Your task to perform on an android device: Show me recent news Image 0: 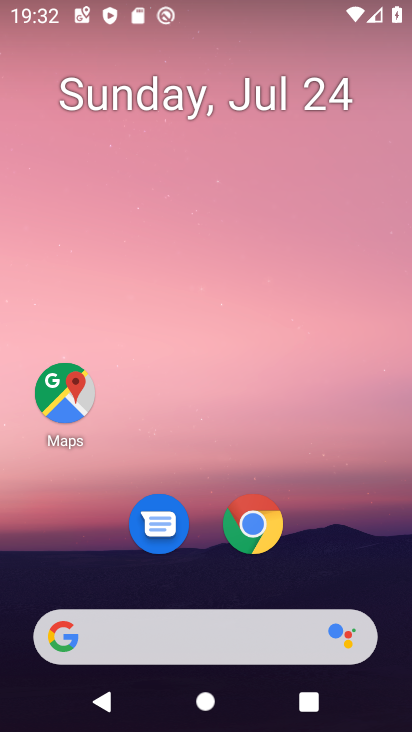
Step 0: click (148, 639)
Your task to perform on an android device: Show me recent news Image 1: 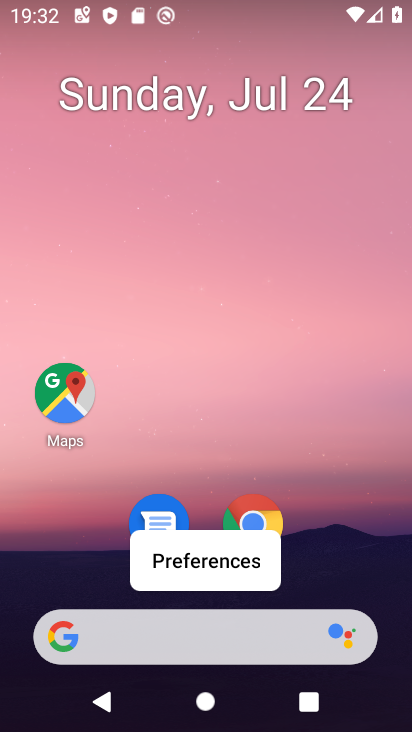
Step 1: click (122, 628)
Your task to perform on an android device: Show me recent news Image 2: 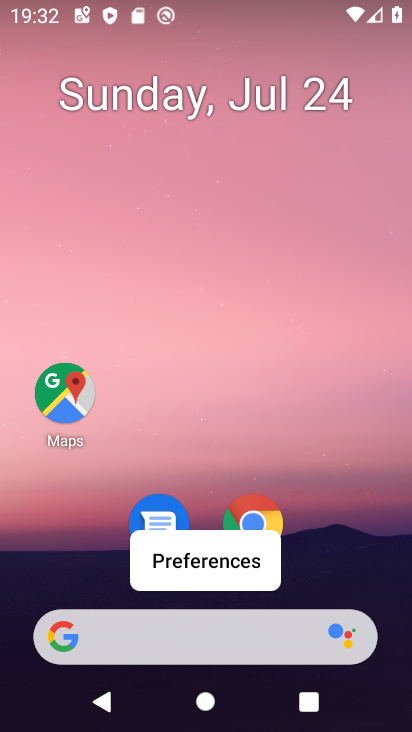
Step 2: click (147, 630)
Your task to perform on an android device: Show me recent news Image 3: 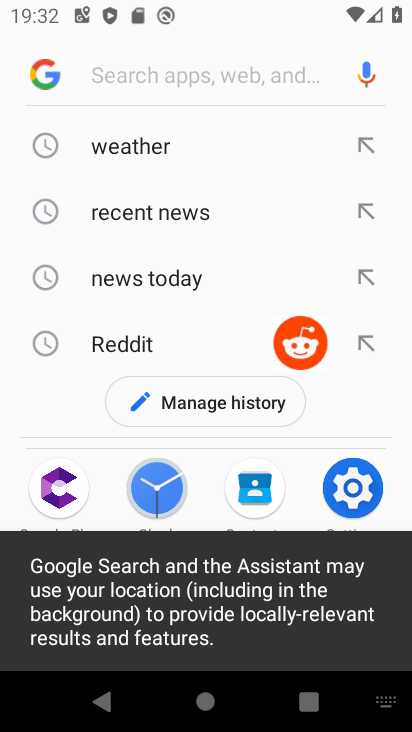
Step 3: click (125, 636)
Your task to perform on an android device: Show me recent news Image 4: 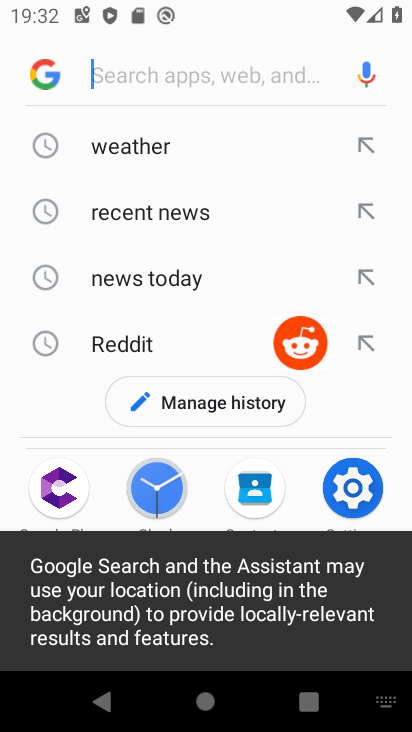
Step 4: click (166, 216)
Your task to perform on an android device: Show me recent news Image 5: 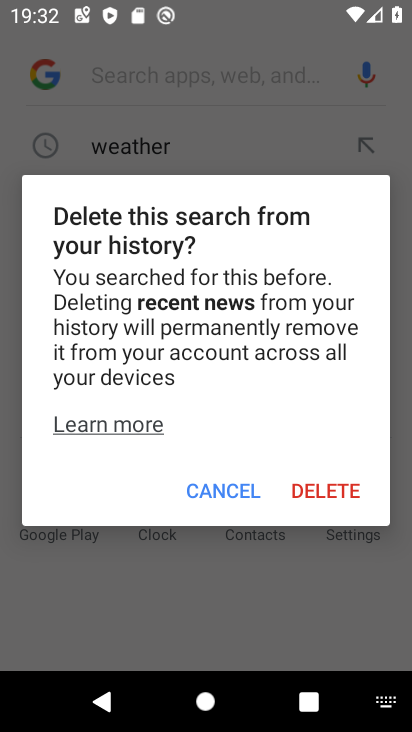
Step 5: click (210, 487)
Your task to perform on an android device: Show me recent news Image 6: 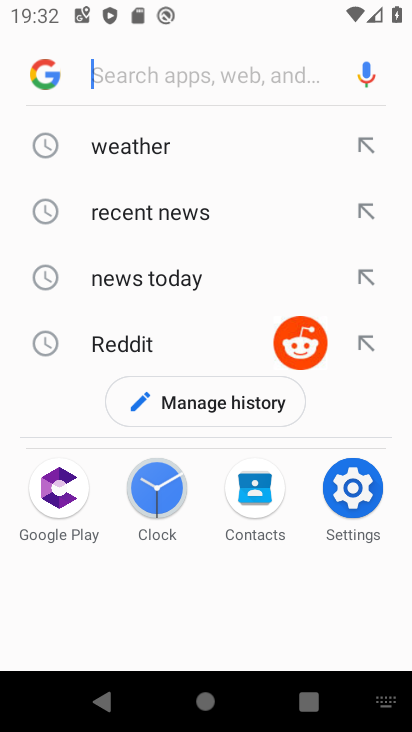
Step 6: click (168, 208)
Your task to perform on an android device: Show me recent news Image 7: 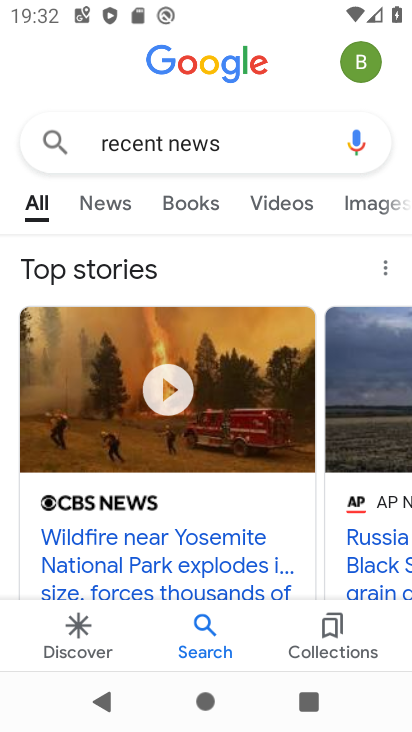
Step 7: click (95, 207)
Your task to perform on an android device: Show me recent news Image 8: 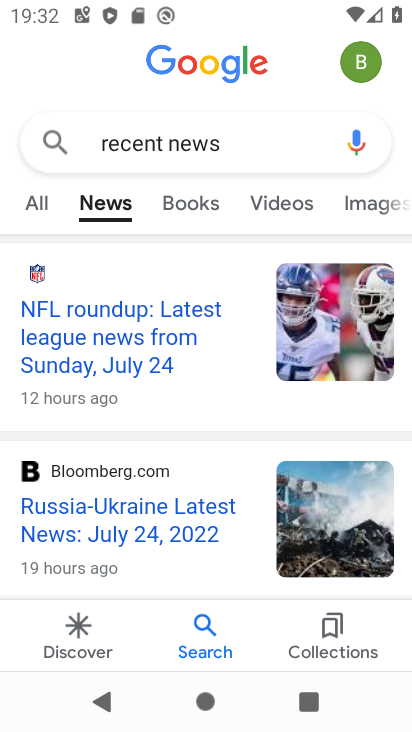
Step 8: task complete